Your task to perform on an android device: Set the phone to "Do not disturb". Image 0: 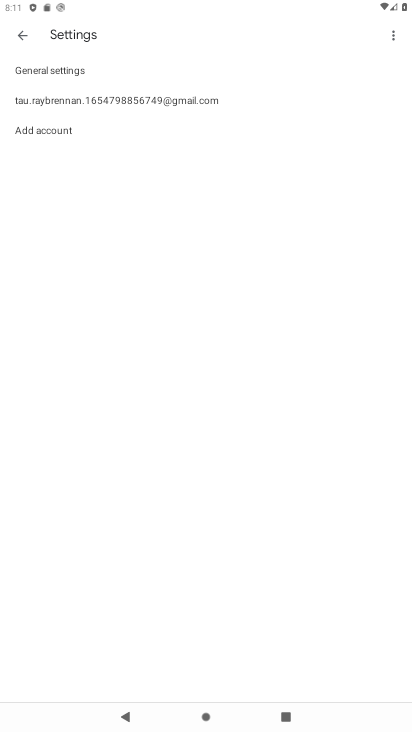
Step 0: press home button
Your task to perform on an android device: Set the phone to "Do not disturb". Image 1: 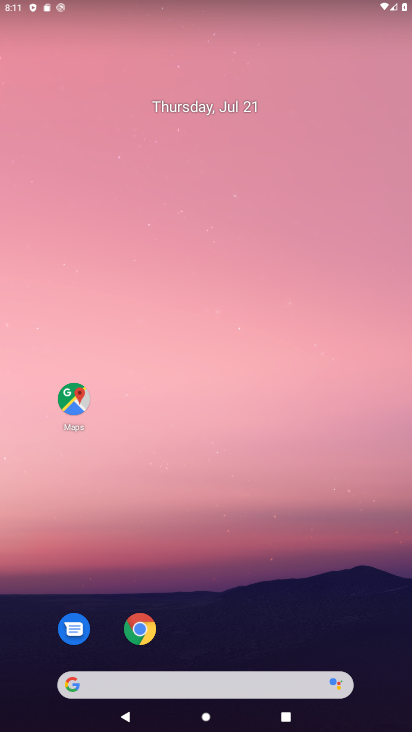
Step 1: drag from (246, 456) to (223, 178)
Your task to perform on an android device: Set the phone to "Do not disturb". Image 2: 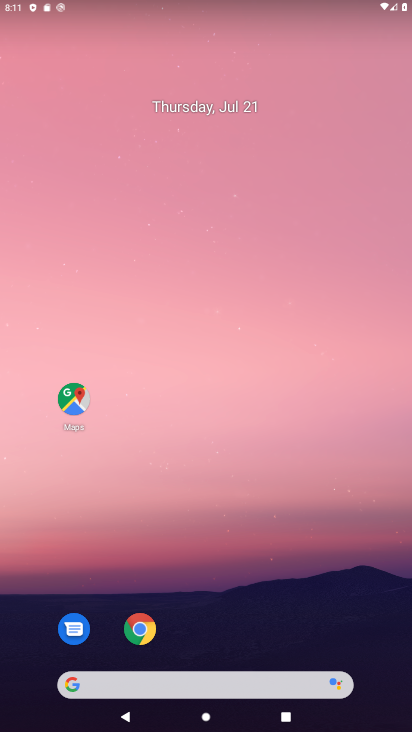
Step 2: drag from (261, 666) to (356, 24)
Your task to perform on an android device: Set the phone to "Do not disturb". Image 3: 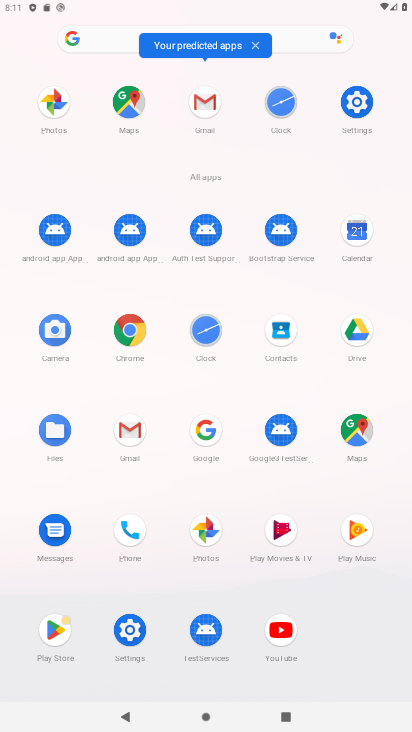
Step 3: drag from (352, 112) to (258, 631)
Your task to perform on an android device: Set the phone to "Do not disturb". Image 4: 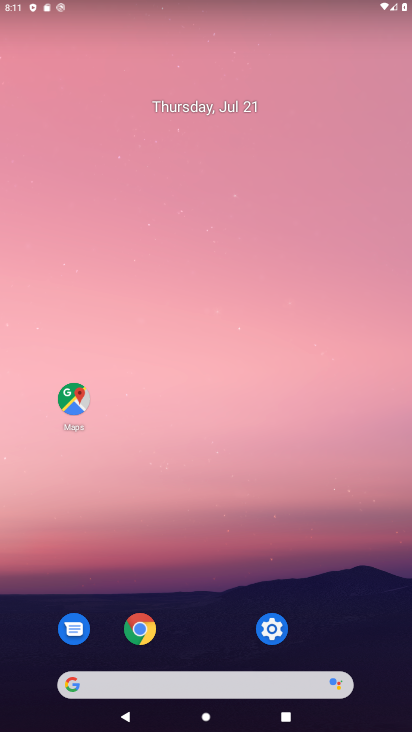
Step 4: click (267, 633)
Your task to perform on an android device: Set the phone to "Do not disturb". Image 5: 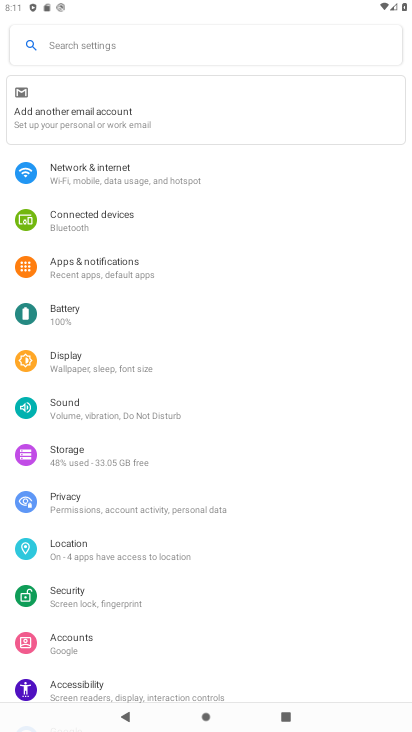
Step 5: click (94, 40)
Your task to perform on an android device: Set the phone to "Do not disturb". Image 6: 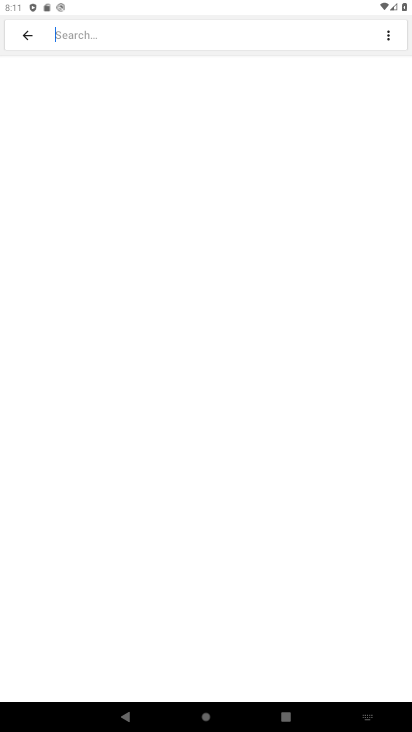
Step 6: click (356, 721)
Your task to perform on an android device: Set the phone to "Do not disturb". Image 7: 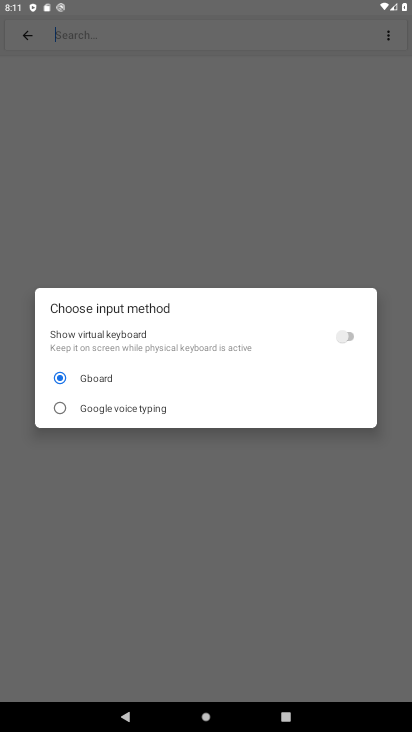
Step 7: click (349, 325)
Your task to perform on an android device: Set the phone to "Do not disturb". Image 8: 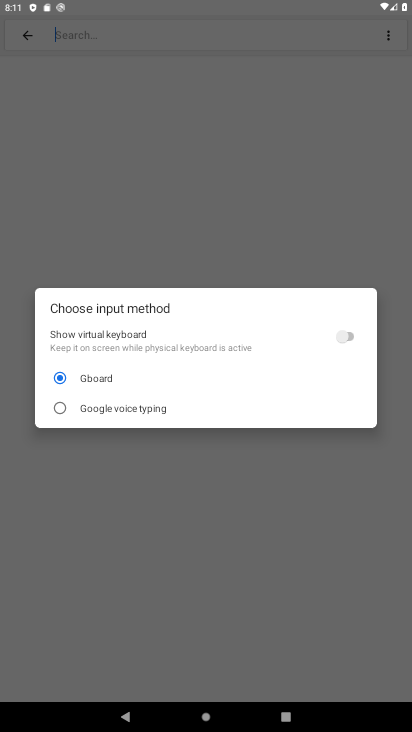
Step 8: click (344, 335)
Your task to perform on an android device: Set the phone to "Do not disturb". Image 9: 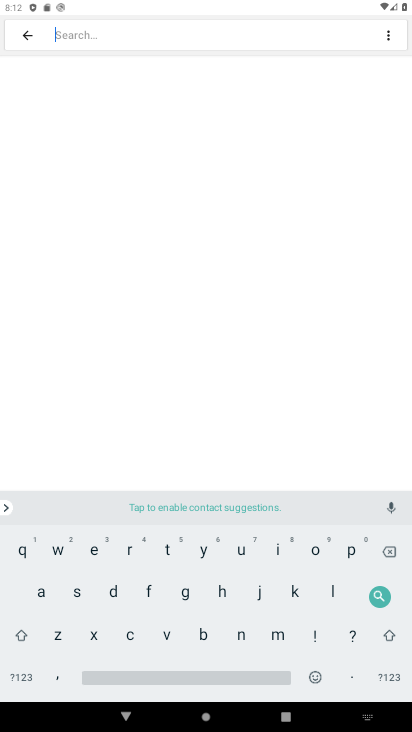
Step 9: click (108, 588)
Your task to perform on an android device: Set the phone to "Do not disturb". Image 10: 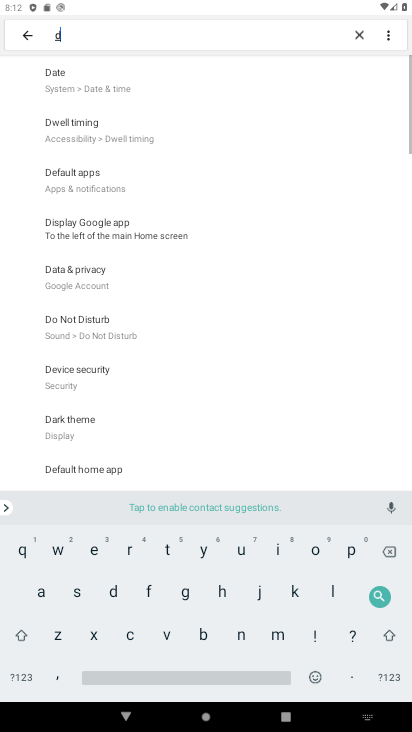
Step 10: click (245, 630)
Your task to perform on an android device: Set the phone to "Do not disturb". Image 11: 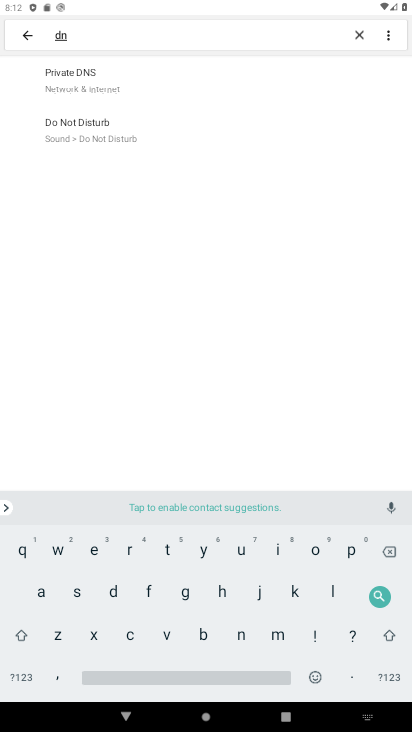
Step 11: click (95, 74)
Your task to perform on an android device: Set the phone to "Do not disturb". Image 12: 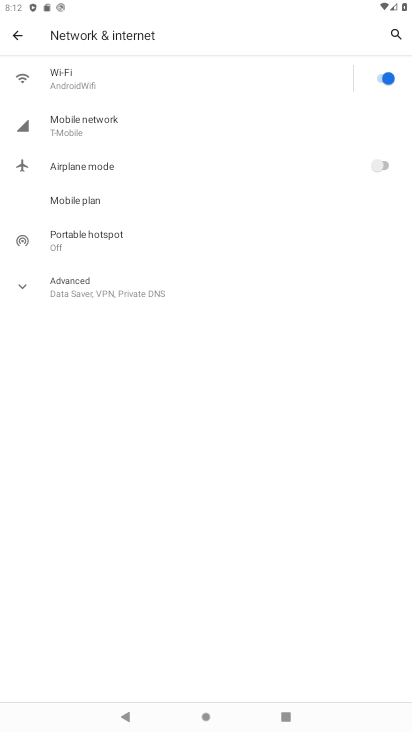
Step 12: task complete